Your task to perform on an android device: Is it going to rain today? Image 0: 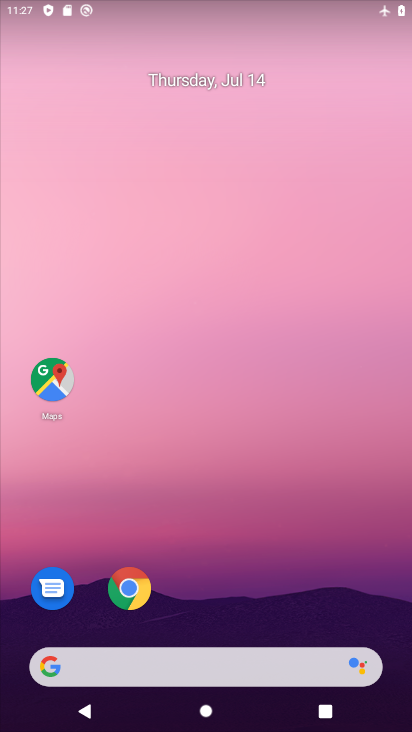
Step 0: drag from (229, 604) to (228, 44)
Your task to perform on an android device: Is it going to rain today? Image 1: 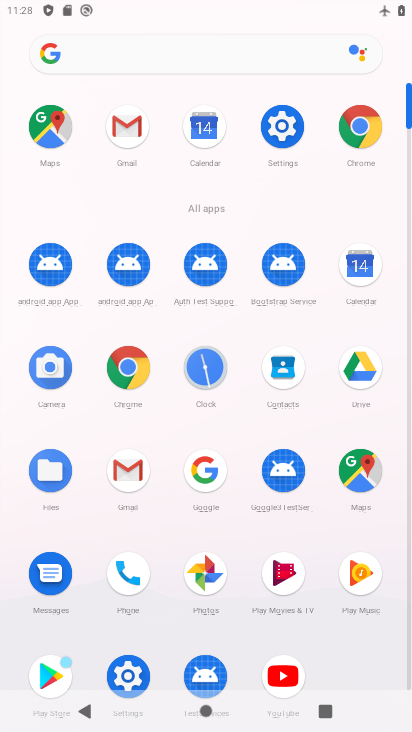
Step 1: click (169, 48)
Your task to perform on an android device: Is it going to rain today? Image 2: 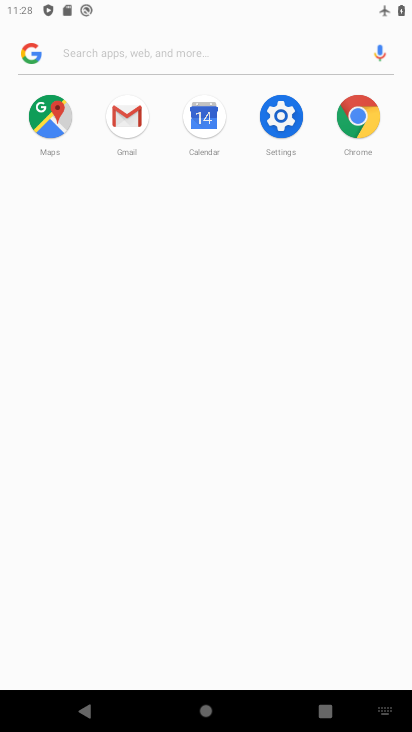
Step 2: type "weather"
Your task to perform on an android device: Is it going to rain today? Image 3: 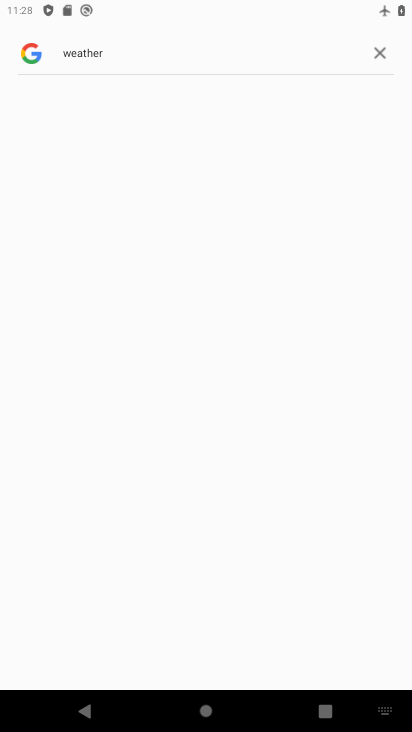
Step 3: click (223, 192)
Your task to perform on an android device: Is it going to rain today? Image 4: 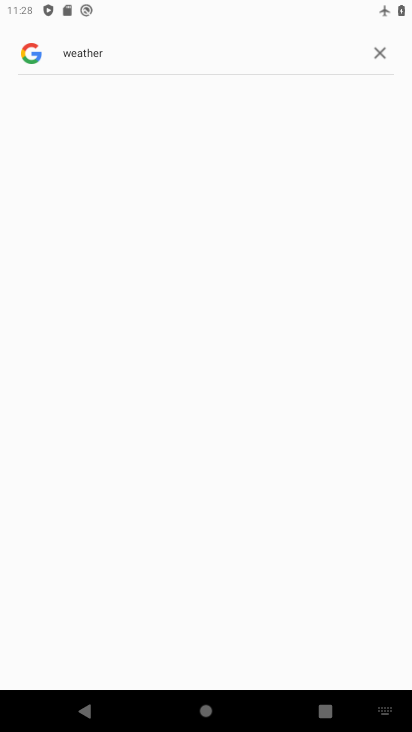
Step 4: click (134, 117)
Your task to perform on an android device: Is it going to rain today? Image 5: 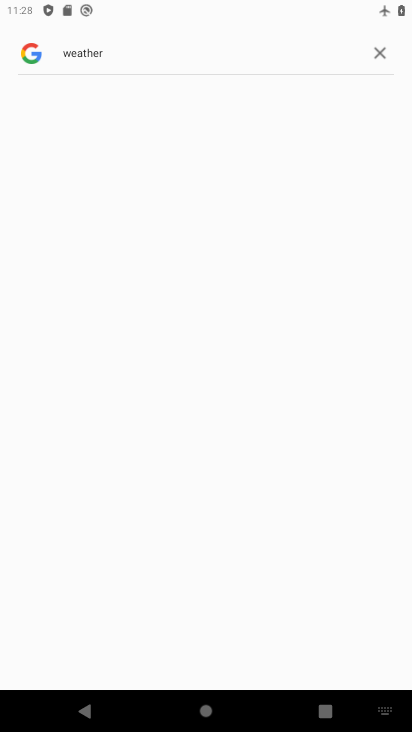
Step 5: task complete